Your task to perform on an android device: turn vacation reply on in the gmail app Image 0: 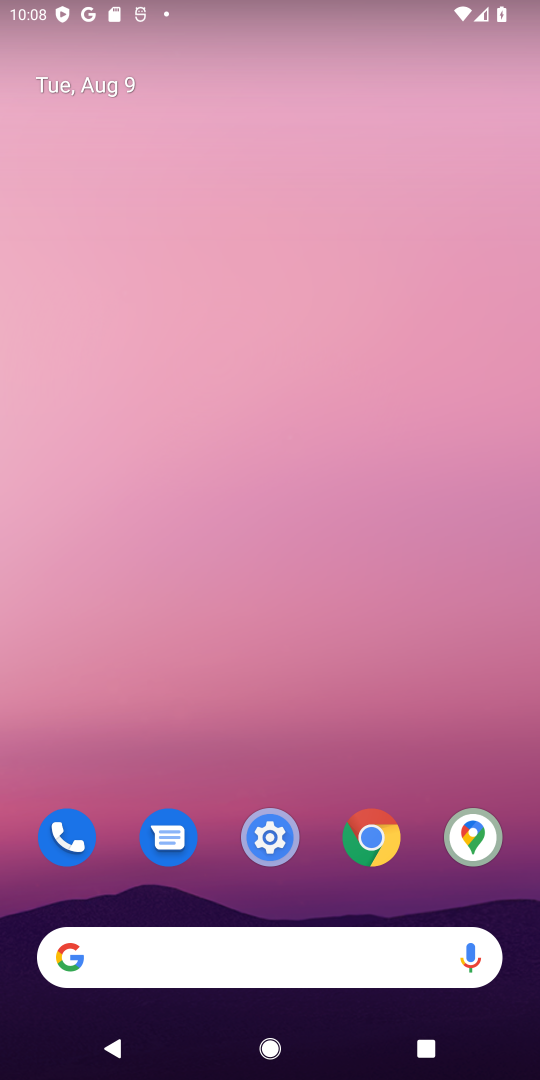
Step 0: drag from (326, 845) to (309, 104)
Your task to perform on an android device: turn vacation reply on in the gmail app Image 1: 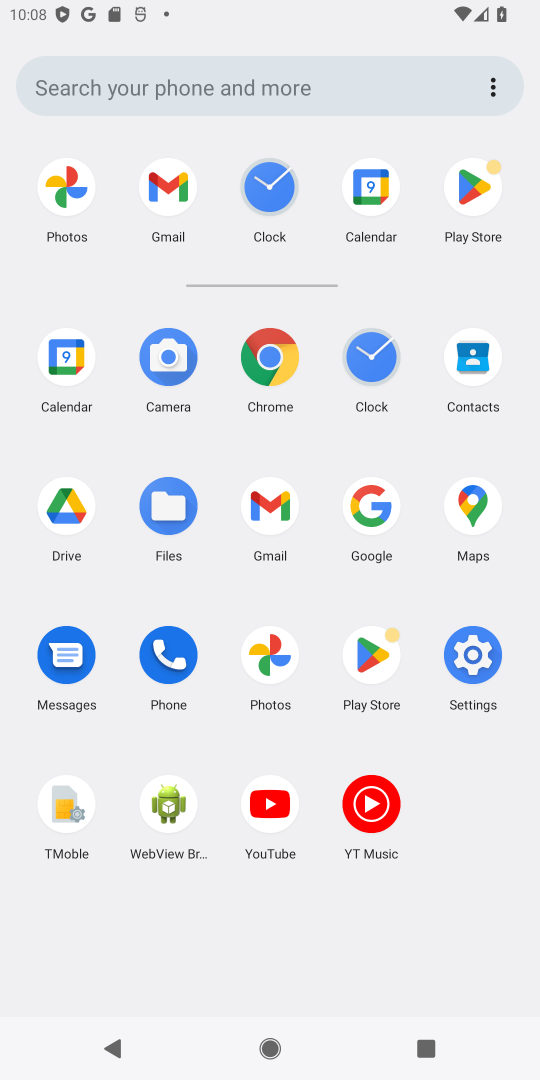
Step 1: click (265, 507)
Your task to perform on an android device: turn vacation reply on in the gmail app Image 2: 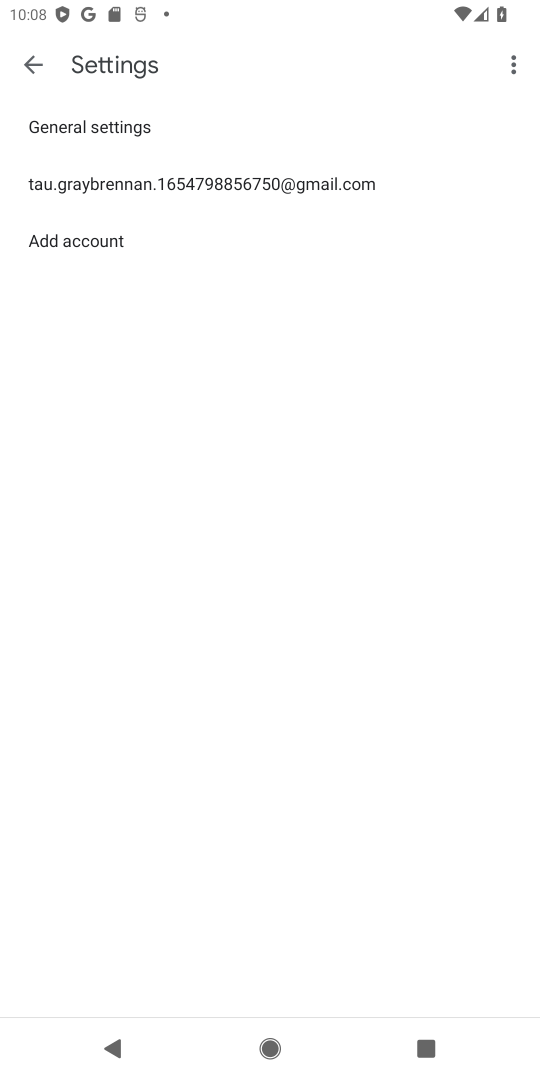
Step 2: click (229, 184)
Your task to perform on an android device: turn vacation reply on in the gmail app Image 3: 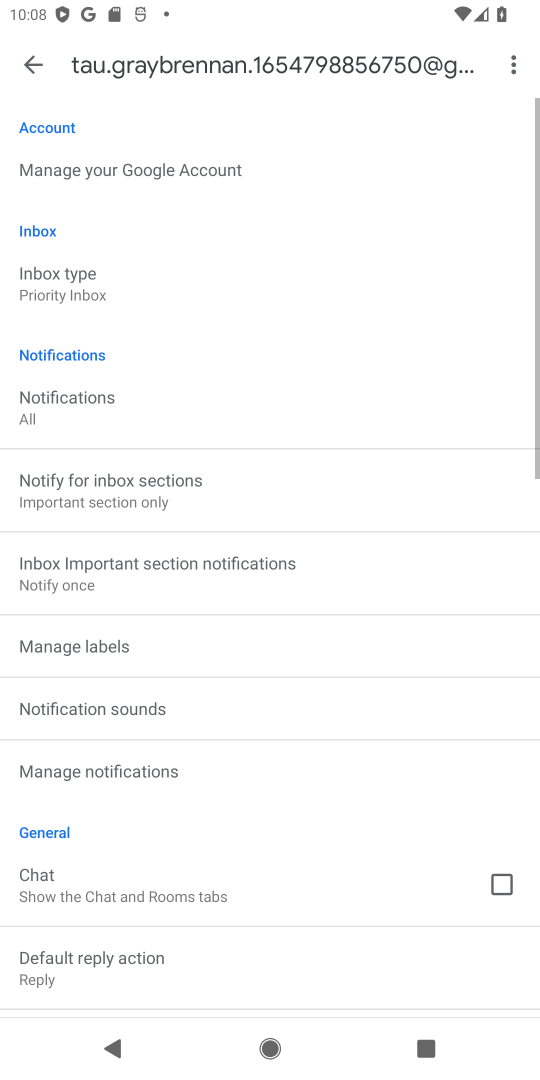
Step 3: drag from (163, 893) to (179, 592)
Your task to perform on an android device: turn vacation reply on in the gmail app Image 4: 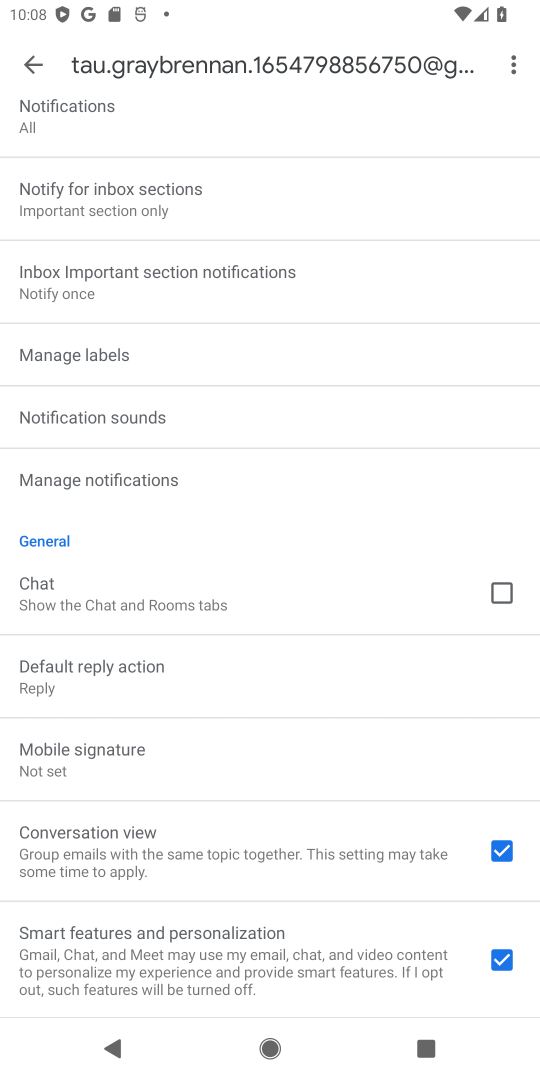
Step 4: drag from (195, 902) to (182, 615)
Your task to perform on an android device: turn vacation reply on in the gmail app Image 5: 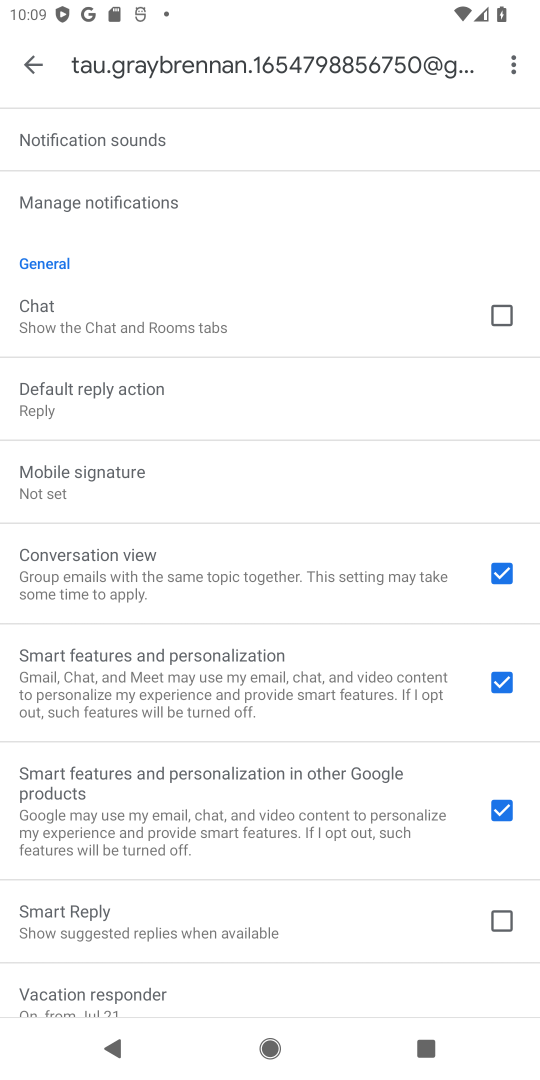
Step 5: drag from (257, 899) to (256, 618)
Your task to perform on an android device: turn vacation reply on in the gmail app Image 6: 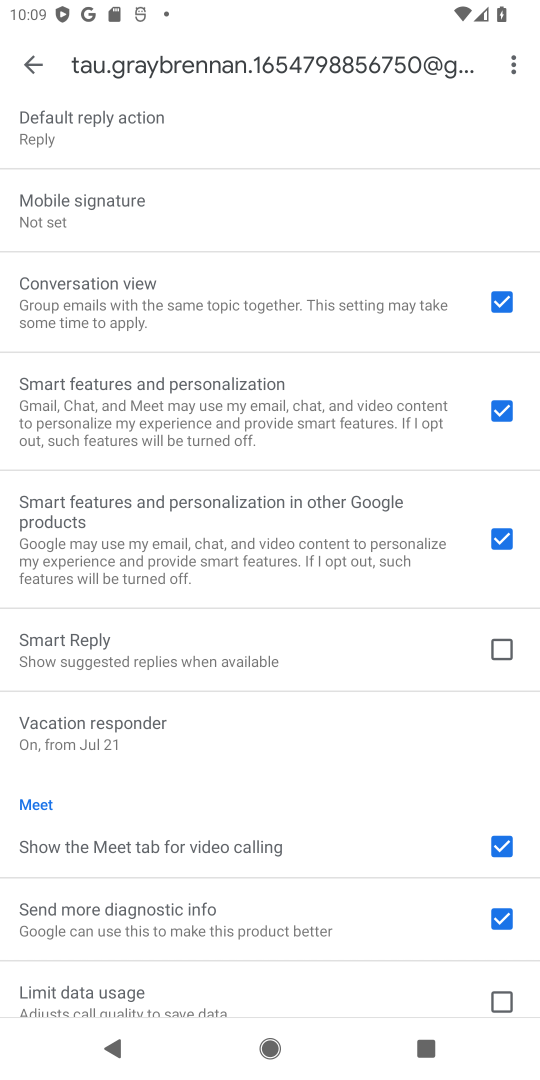
Step 6: click (115, 737)
Your task to perform on an android device: turn vacation reply on in the gmail app Image 7: 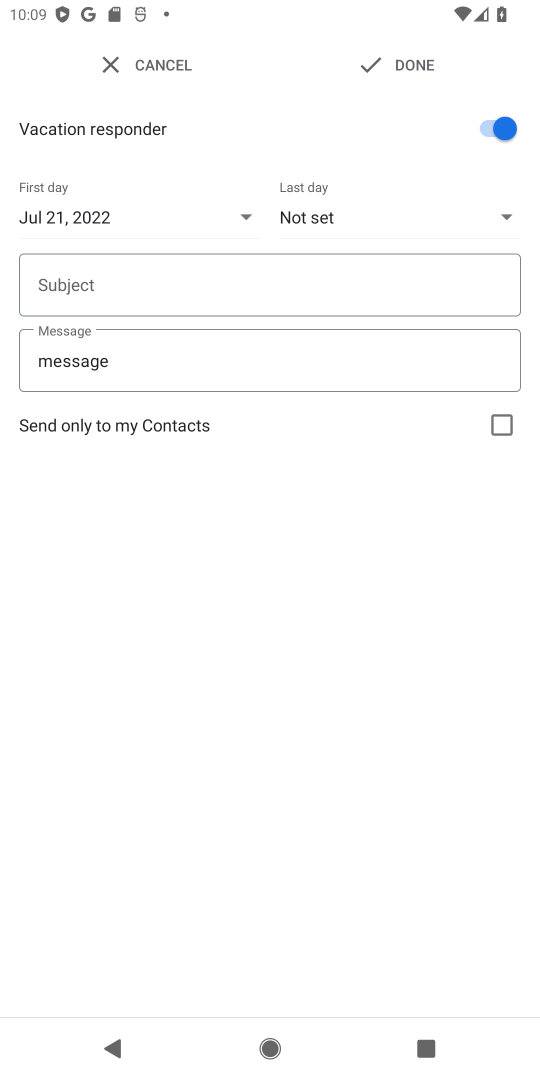
Step 7: task complete